Your task to perform on an android device: turn on translation in the chrome app Image 0: 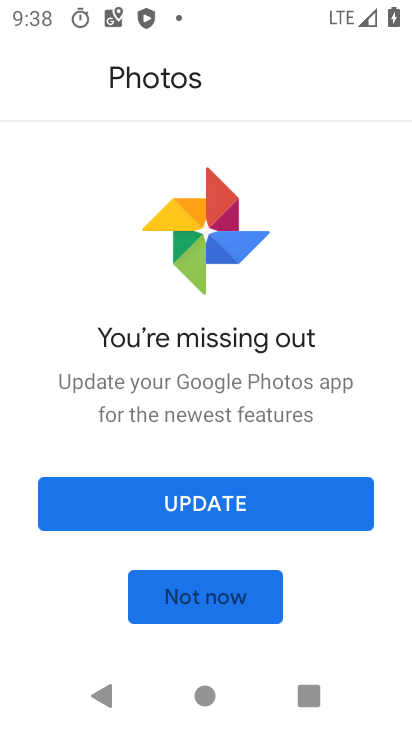
Step 0: press home button
Your task to perform on an android device: turn on translation in the chrome app Image 1: 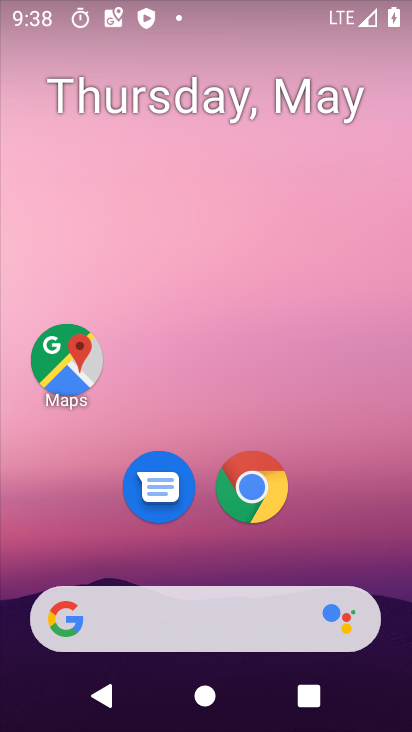
Step 1: click (236, 505)
Your task to perform on an android device: turn on translation in the chrome app Image 2: 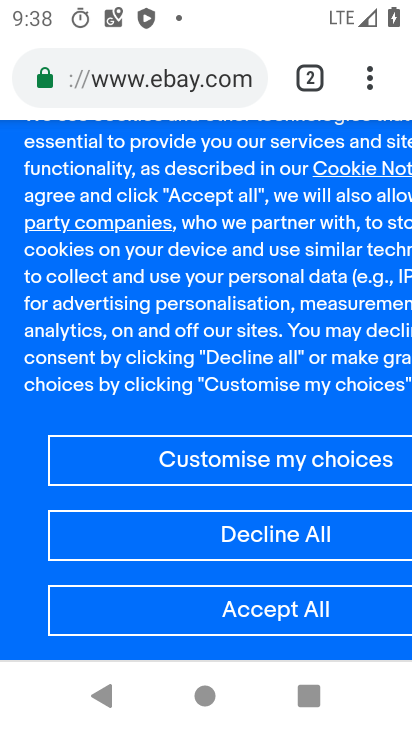
Step 2: click (376, 90)
Your task to perform on an android device: turn on translation in the chrome app Image 3: 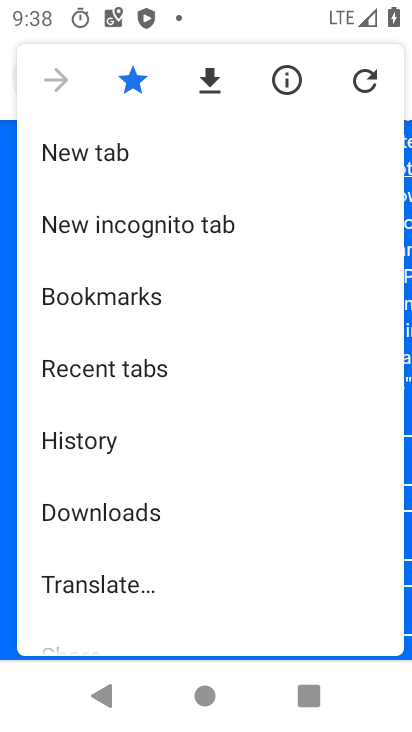
Step 3: drag from (161, 521) to (200, 353)
Your task to perform on an android device: turn on translation in the chrome app Image 4: 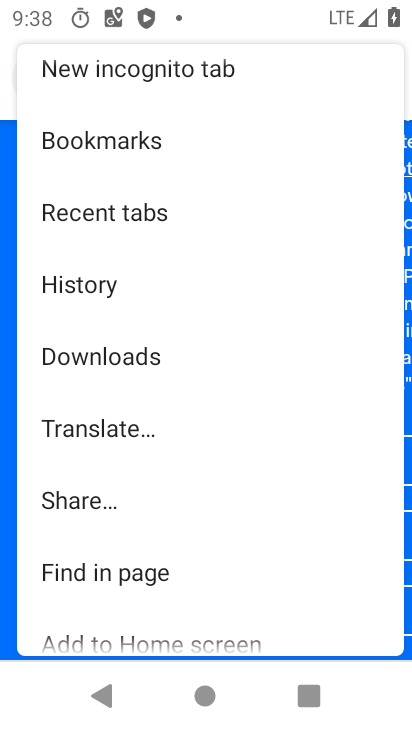
Step 4: click (123, 440)
Your task to perform on an android device: turn on translation in the chrome app Image 5: 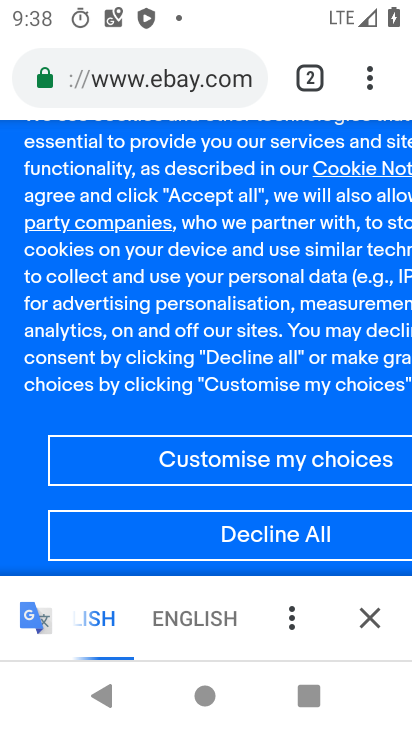
Step 5: click (121, 437)
Your task to perform on an android device: turn on translation in the chrome app Image 6: 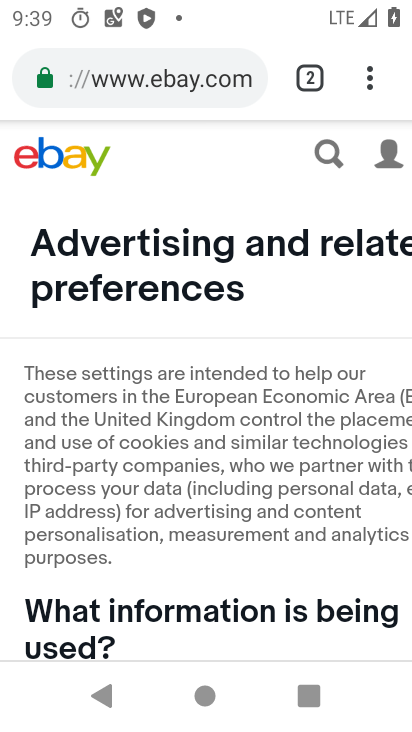
Step 6: click (374, 69)
Your task to perform on an android device: turn on translation in the chrome app Image 7: 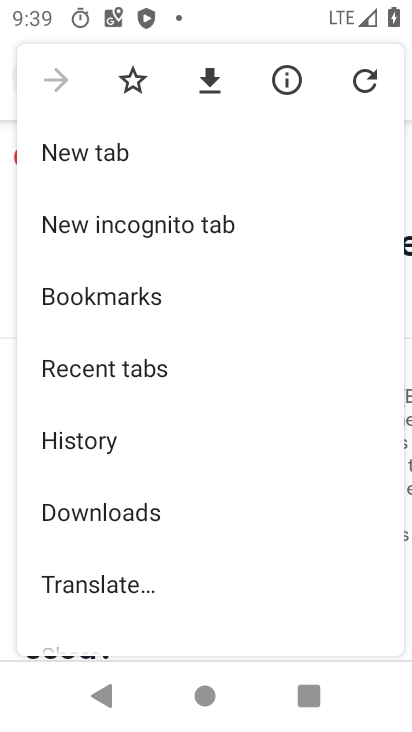
Step 7: click (168, 583)
Your task to perform on an android device: turn on translation in the chrome app Image 8: 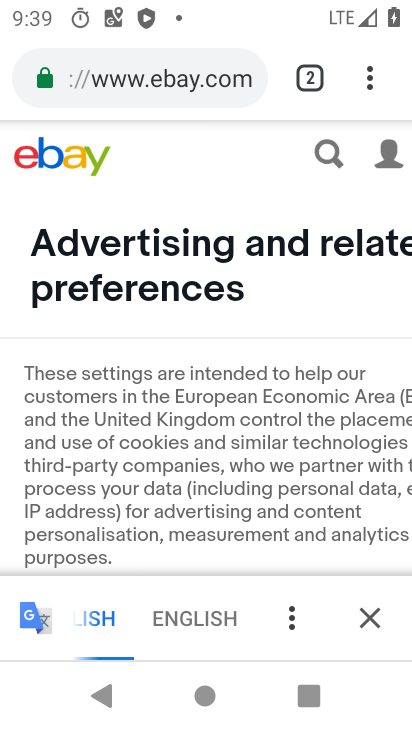
Step 8: click (291, 625)
Your task to perform on an android device: turn on translation in the chrome app Image 9: 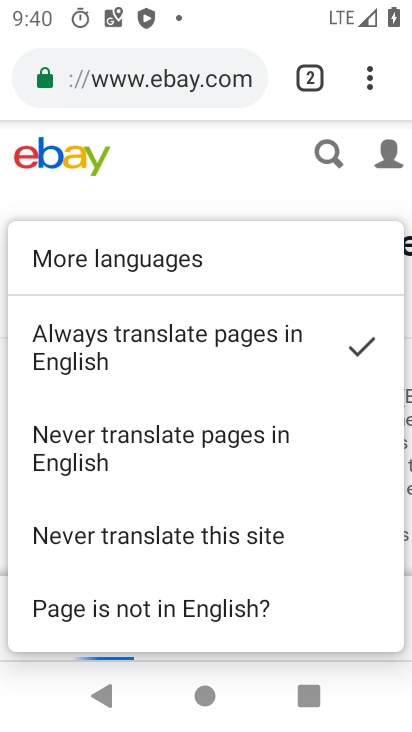
Step 9: task complete